Your task to perform on an android device: see creations saved in the google photos Image 0: 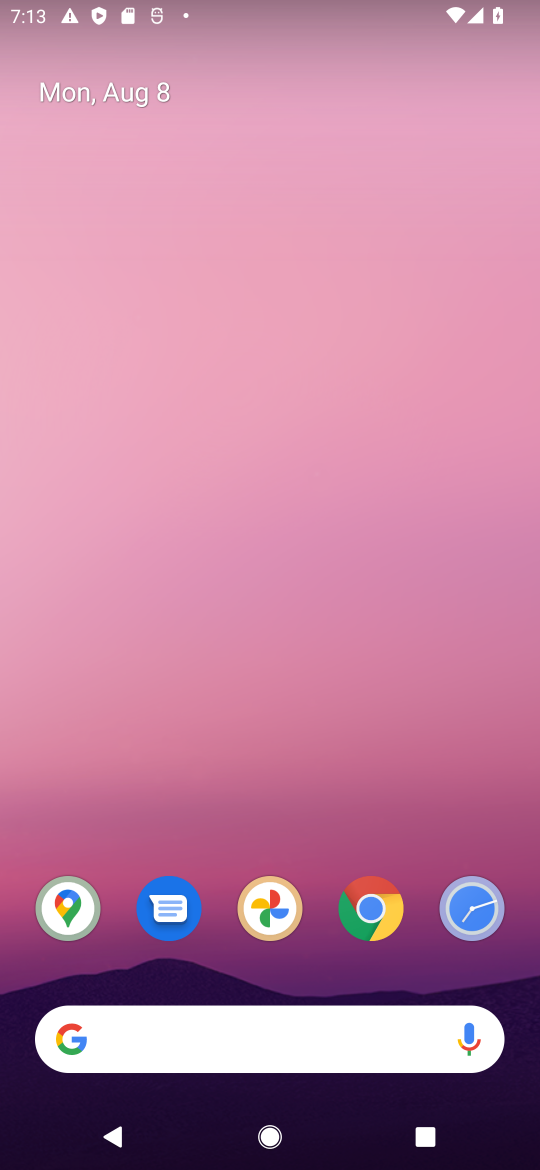
Step 0: click (281, 886)
Your task to perform on an android device: see creations saved in the google photos Image 1: 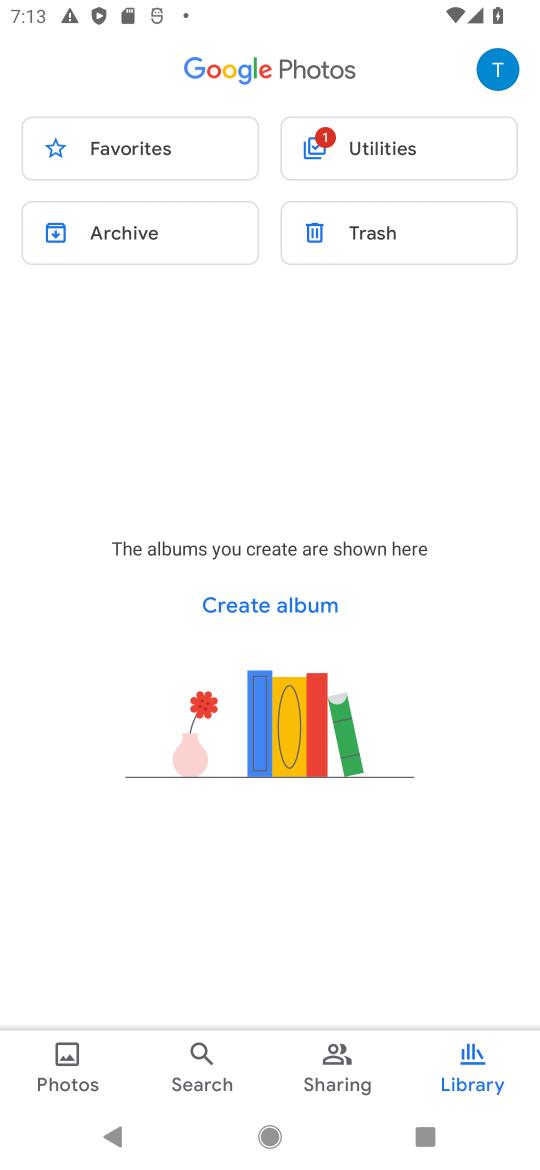
Step 1: click (281, 886)
Your task to perform on an android device: see creations saved in the google photos Image 2: 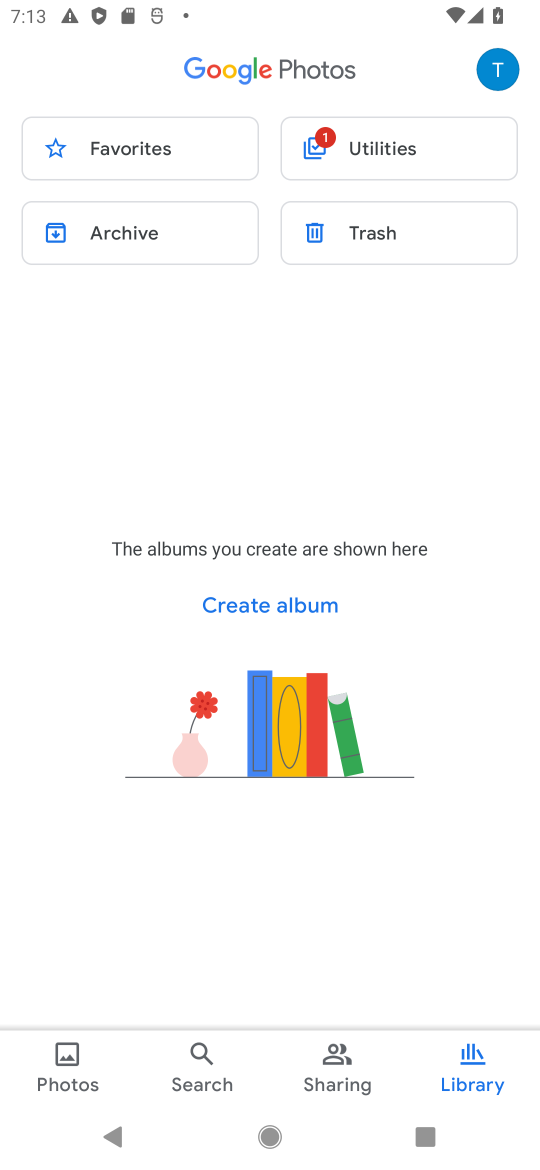
Step 2: task complete